Your task to perform on an android device: Go to Android settings Image 0: 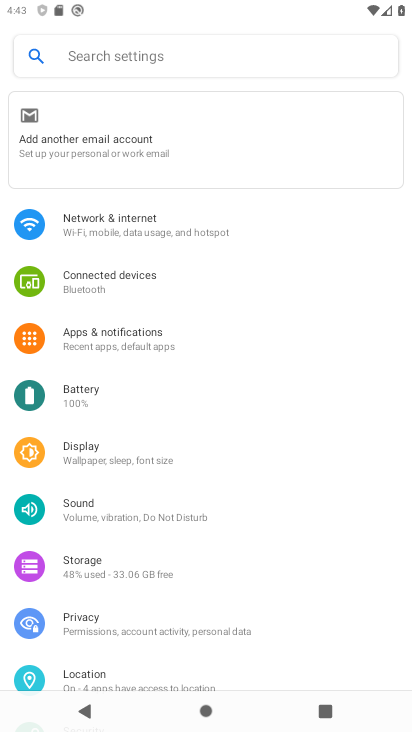
Step 0: task complete